Your task to perform on an android device: change alarm snooze length Image 0: 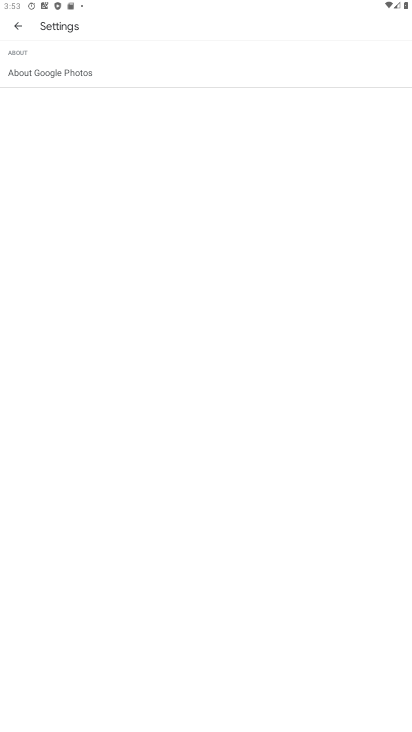
Step 0: press home button
Your task to perform on an android device: change alarm snooze length Image 1: 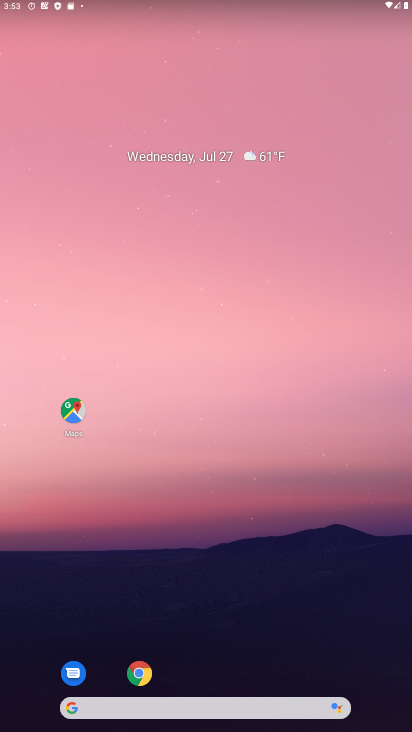
Step 1: drag from (49, 645) to (245, 66)
Your task to perform on an android device: change alarm snooze length Image 2: 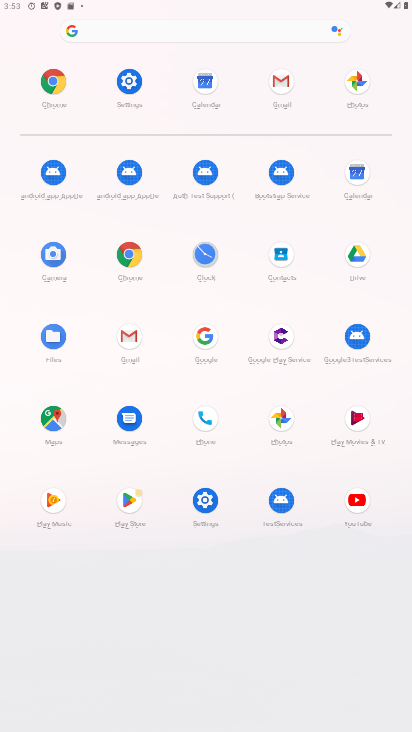
Step 2: click (125, 347)
Your task to perform on an android device: change alarm snooze length Image 3: 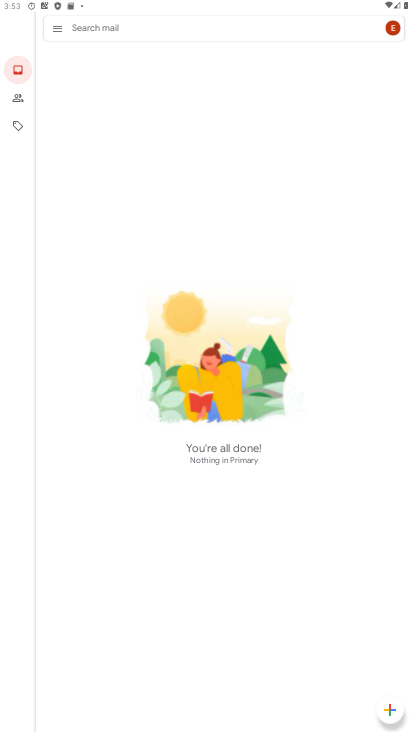
Step 3: click (53, 25)
Your task to perform on an android device: change alarm snooze length Image 4: 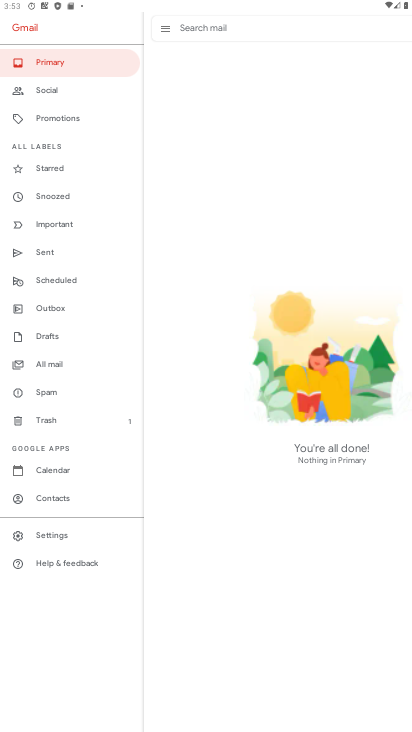
Step 4: click (71, 278)
Your task to perform on an android device: change alarm snooze length Image 5: 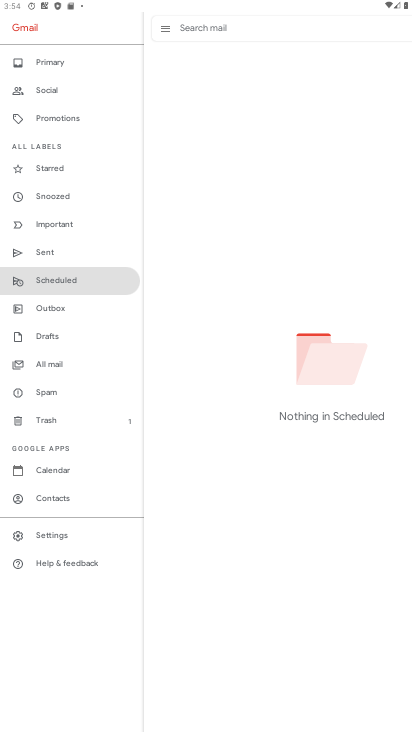
Step 5: task complete